Your task to perform on an android device: turn pop-ups off in chrome Image 0: 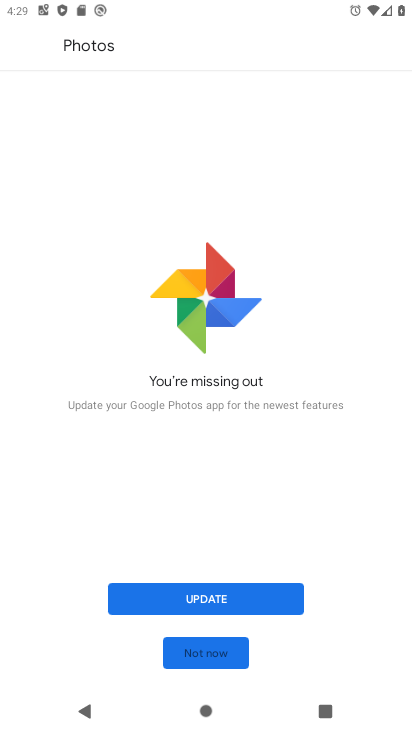
Step 0: press home button
Your task to perform on an android device: turn pop-ups off in chrome Image 1: 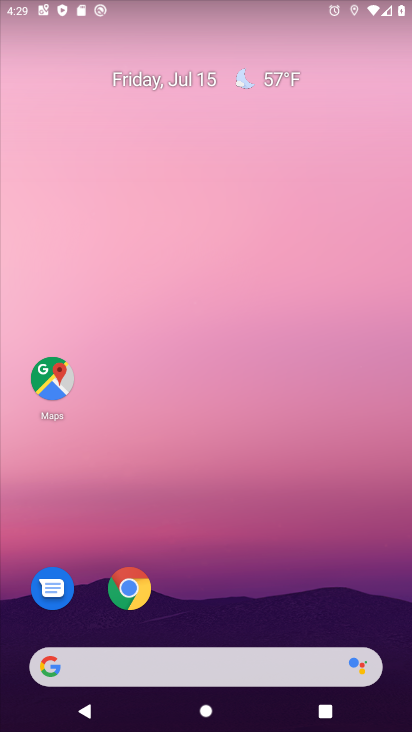
Step 1: click (131, 588)
Your task to perform on an android device: turn pop-ups off in chrome Image 2: 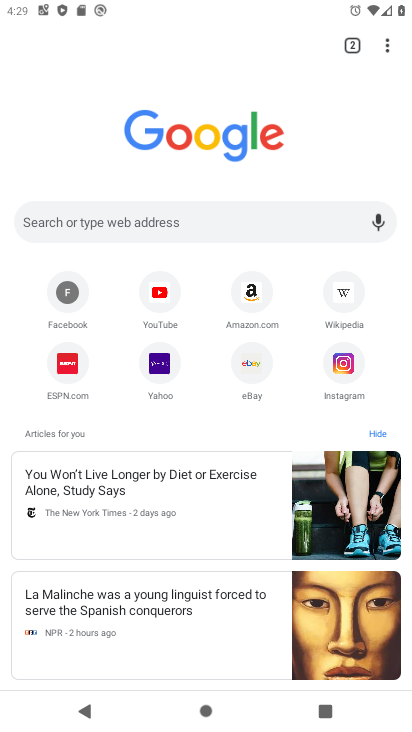
Step 2: click (387, 44)
Your task to perform on an android device: turn pop-ups off in chrome Image 3: 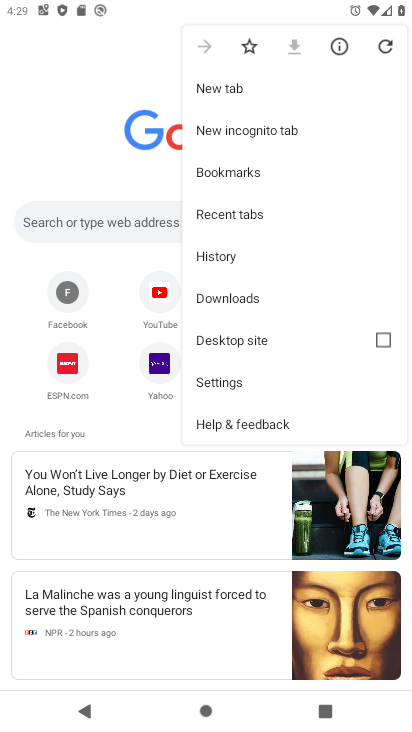
Step 3: click (226, 382)
Your task to perform on an android device: turn pop-ups off in chrome Image 4: 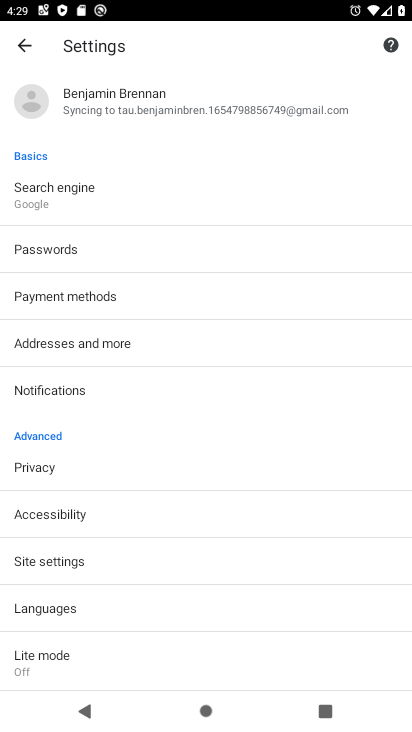
Step 4: click (53, 564)
Your task to perform on an android device: turn pop-ups off in chrome Image 5: 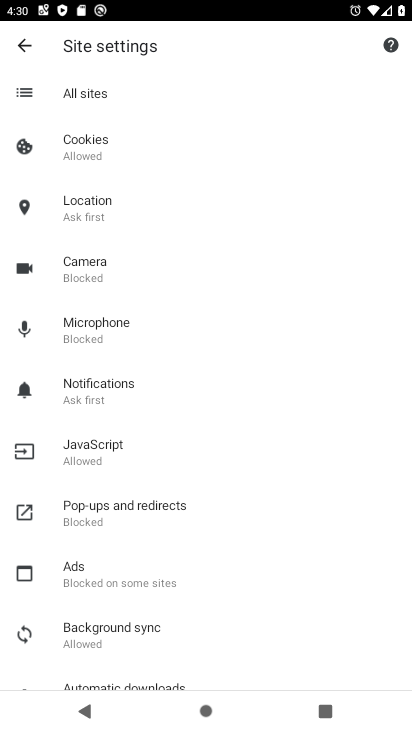
Step 5: click (113, 503)
Your task to perform on an android device: turn pop-ups off in chrome Image 6: 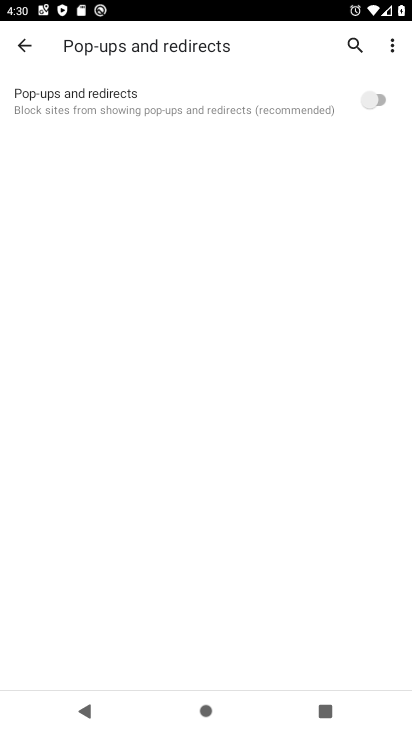
Step 6: task complete